Your task to perform on an android device: Open the web browser Image 0: 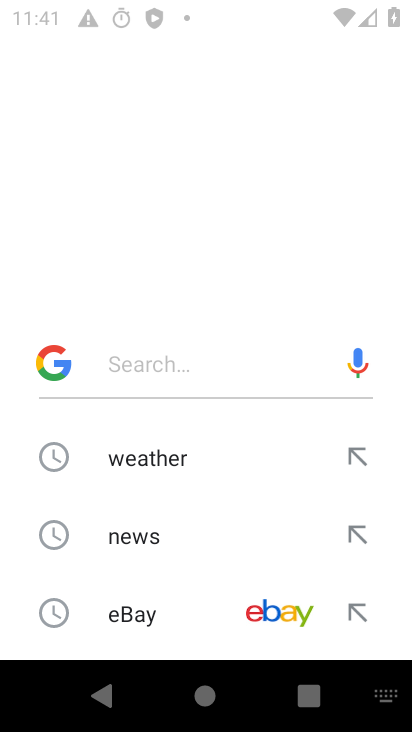
Step 0: press home button
Your task to perform on an android device: Open the web browser Image 1: 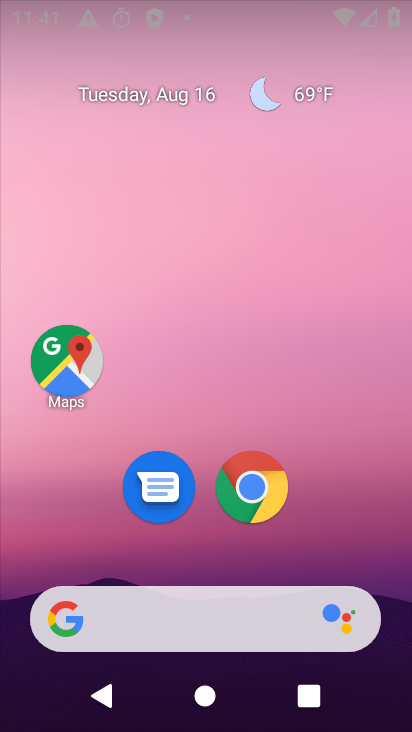
Step 1: click (242, 481)
Your task to perform on an android device: Open the web browser Image 2: 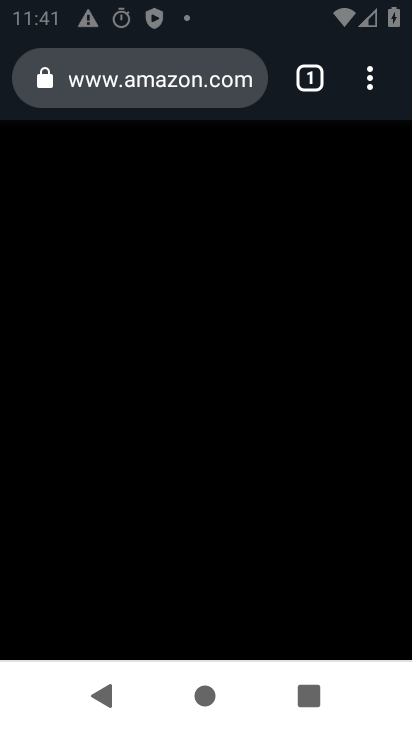
Step 2: task complete